Your task to perform on an android device: turn notification dots on Image 0: 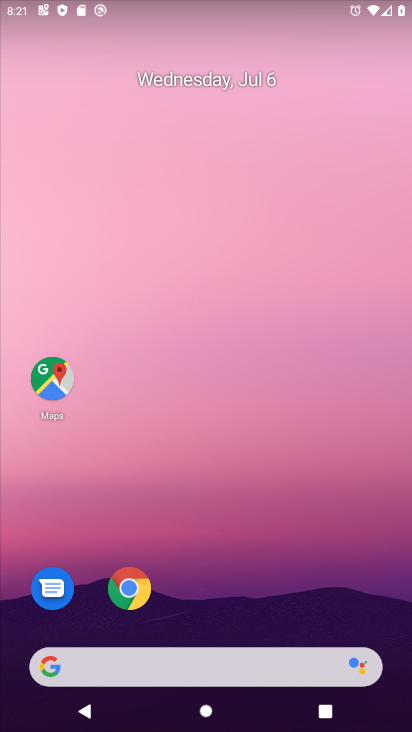
Step 0: drag from (235, 604) to (202, 195)
Your task to perform on an android device: turn notification dots on Image 1: 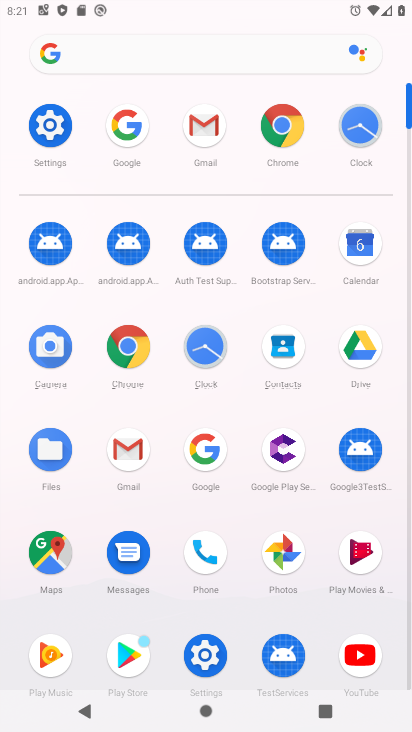
Step 1: click (50, 127)
Your task to perform on an android device: turn notification dots on Image 2: 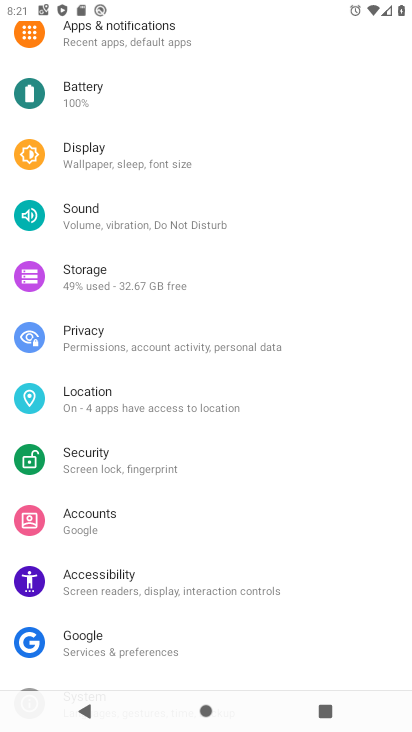
Step 2: drag from (212, 210) to (202, 731)
Your task to perform on an android device: turn notification dots on Image 3: 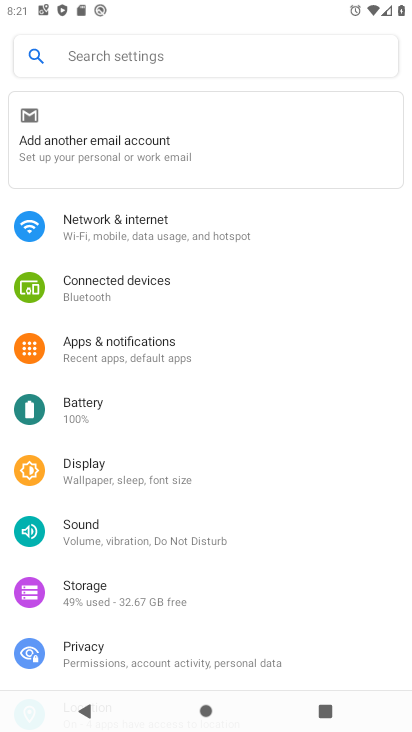
Step 3: click (159, 36)
Your task to perform on an android device: turn notification dots on Image 4: 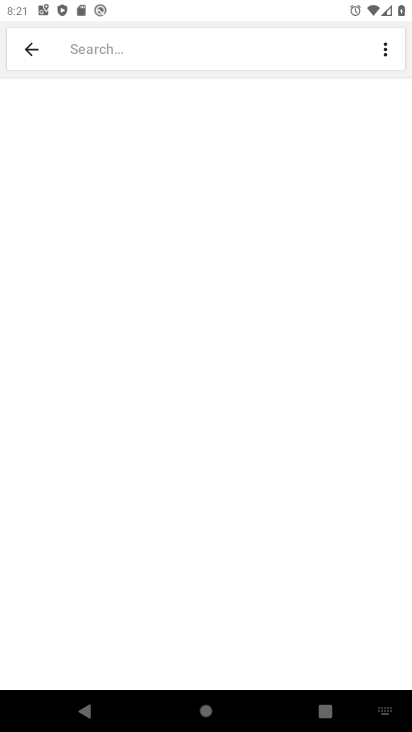
Step 4: type "notification dots  "
Your task to perform on an android device: turn notification dots on Image 5: 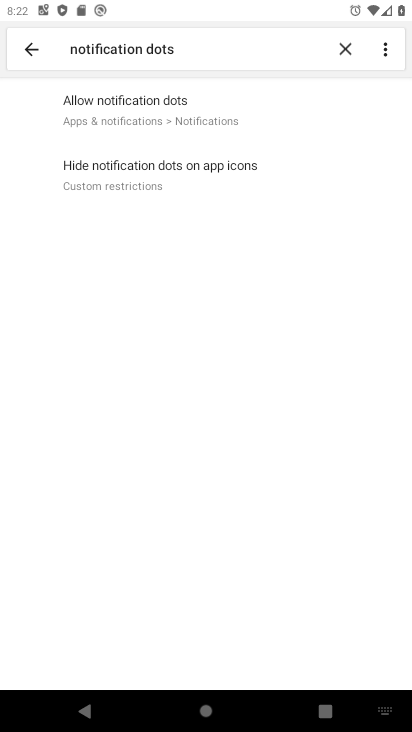
Step 5: click (137, 89)
Your task to perform on an android device: turn notification dots on Image 6: 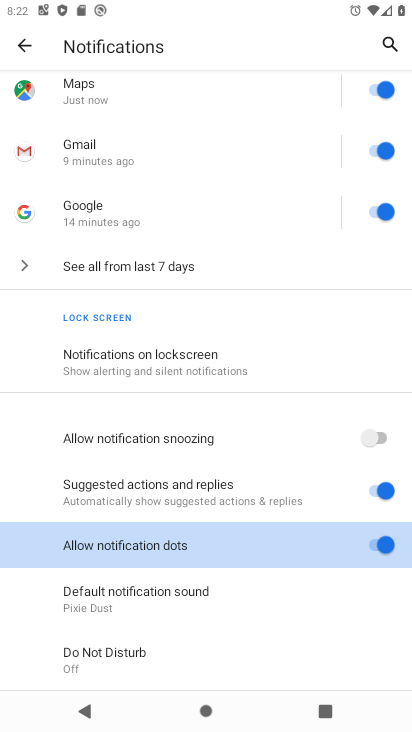
Step 6: task complete